Your task to perform on an android device: add a label to a message in the gmail app Image 0: 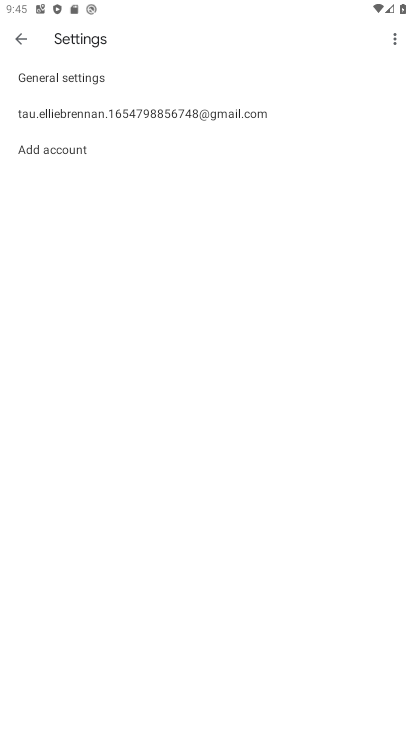
Step 0: press home button
Your task to perform on an android device: add a label to a message in the gmail app Image 1: 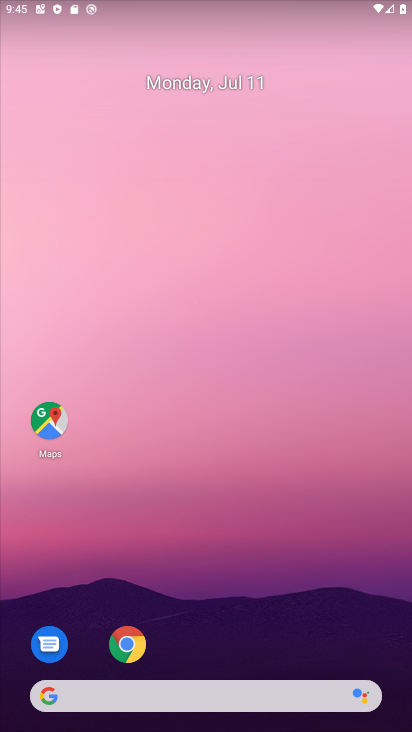
Step 1: drag from (222, 662) to (174, 80)
Your task to perform on an android device: add a label to a message in the gmail app Image 2: 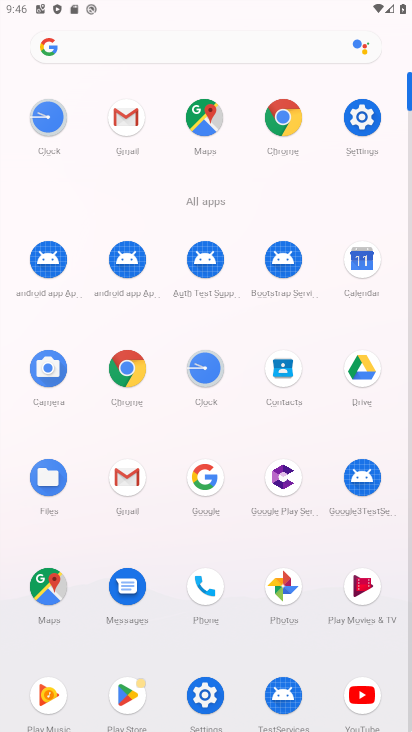
Step 2: click (127, 473)
Your task to perform on an android device: add a label to a message in the gmail app Image 3: 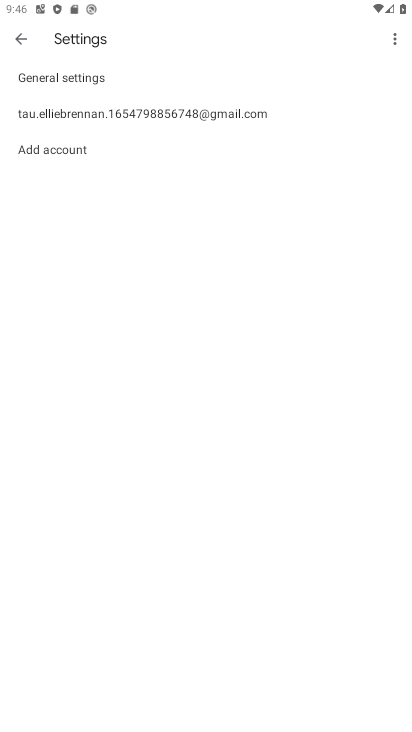
Step 3: click (18, 41)
Your task to perform on an android device: add a label to a message in the gmail app Image 4: 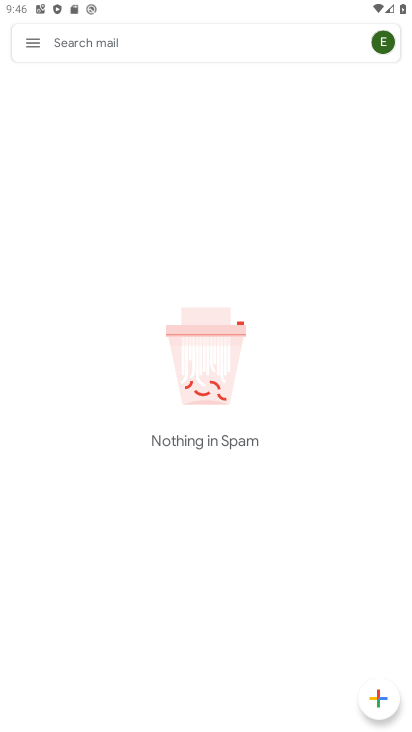
Step 4: click (32, 45)
Your task to perform on an android device: add a label to a message in the gmail app Image 5: 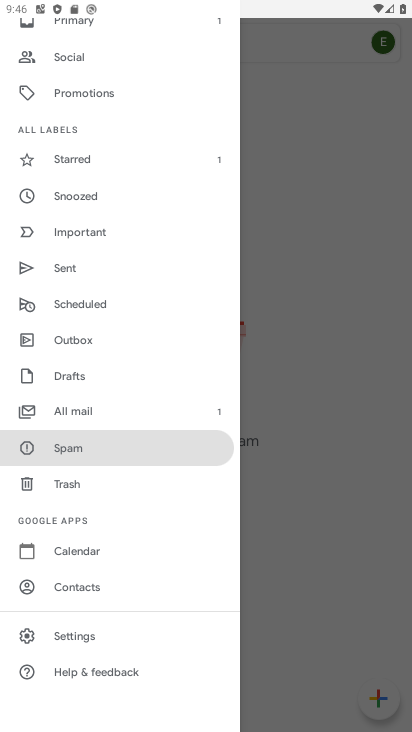
Step 5: click (82, 408)
Your task to perform on an android device: add a label to a message in the gmail app Image 6: 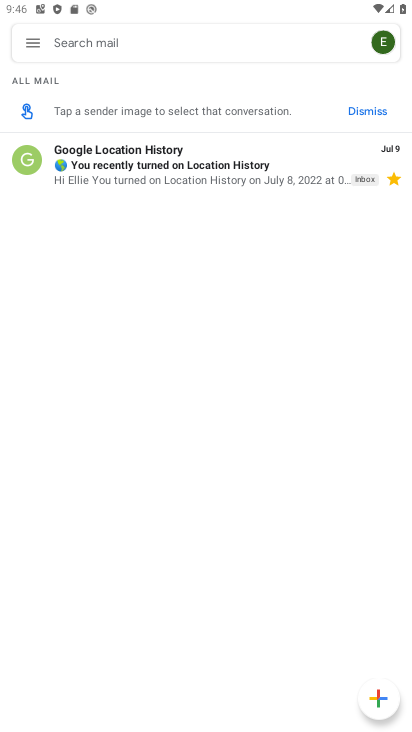
Step 6: task complete